Your task to perform on an android device: Open Maps and search for coffee Image 0: 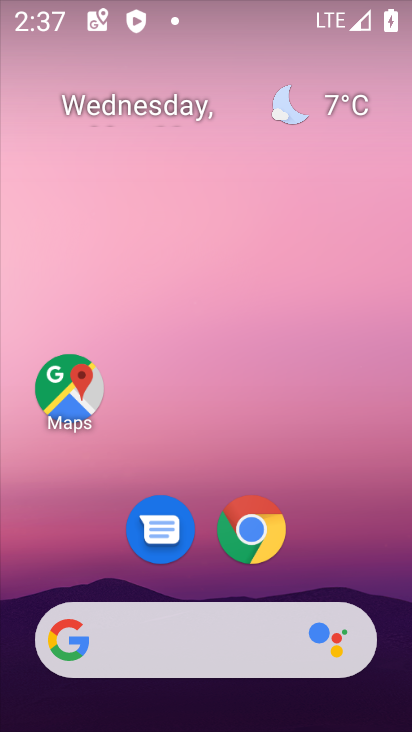
Step 0: press back button
Your task to perform on an android device: Open Maps and search for coffee Image 1: 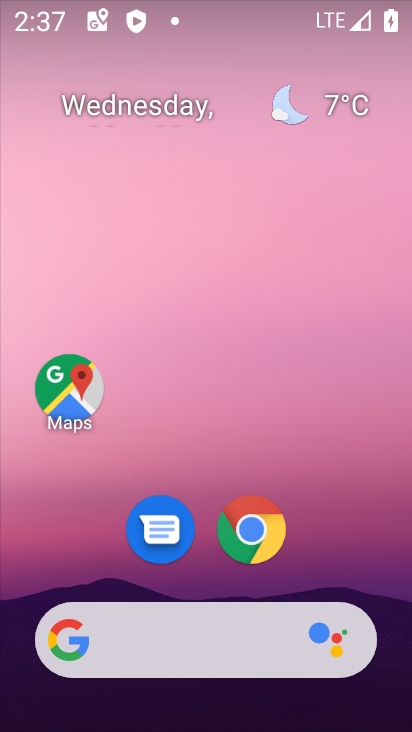
Step 1: click (63, 407)
Your task to perform on an android device: Open Maps and search for coffee Image 2: 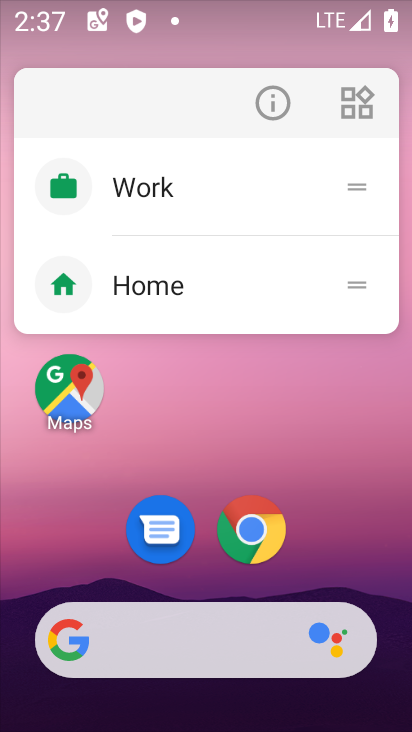
Step 2: click (67, 389)
Your task to perform on an android device: Open Maps and search for coffee Image 3: 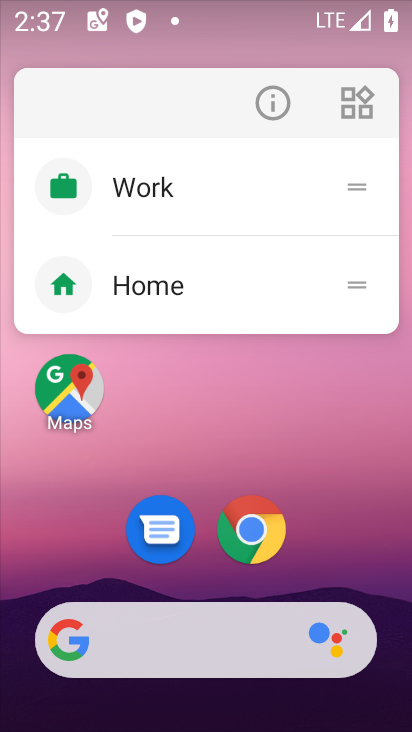
Step 3: click (253, 107)
Your task to perform on an android device: Open Maps and search for coffee Image 4: 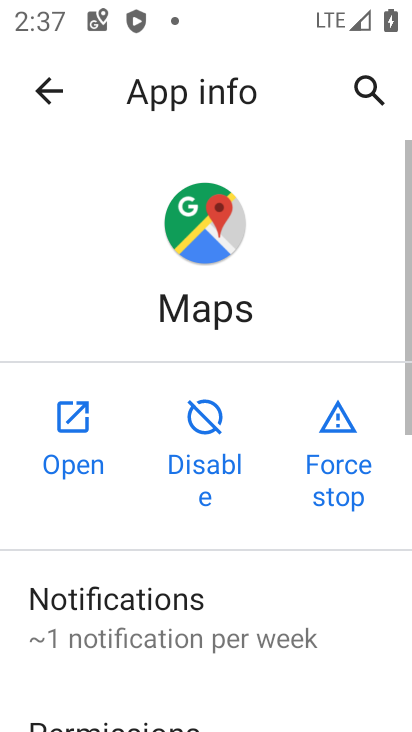
Step 4: click (68, 417)
Your task to perform on an android device: Open Maps and search for coffee Image 5: 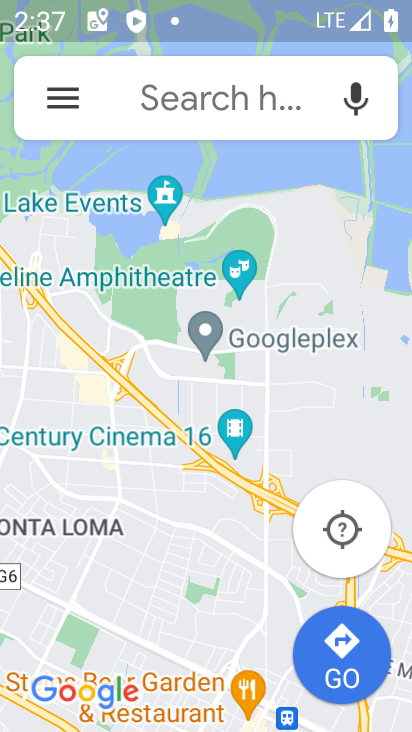
Step 5: click (182, 102)
Your task to perform on an android device: Open Maps and search for coffee Image 6: 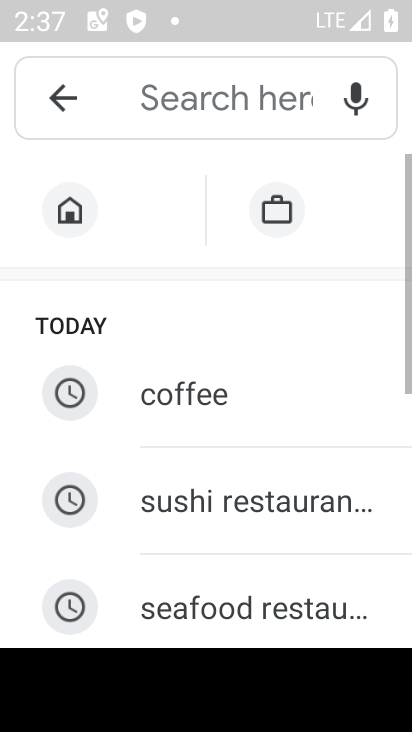
Step 6: click (157, 398)
Your task to perform on an android device: Open Maps and search for coffee Image 7: 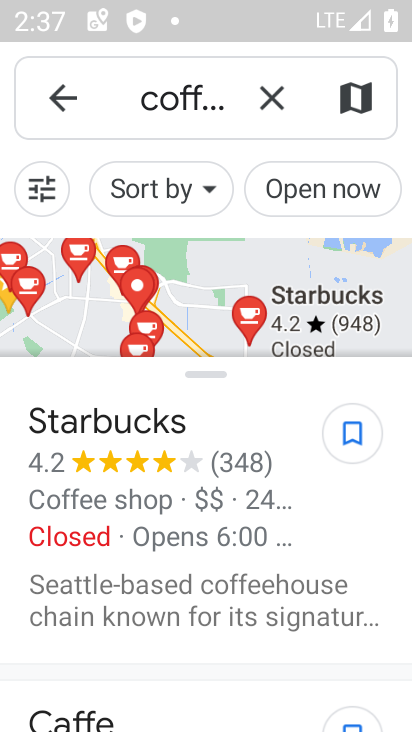
Step 7: task complete